Your task to perform on an android device: open app "Walmart Shopping & Grocery" (install if not already installed) and go to login screen Image 0: 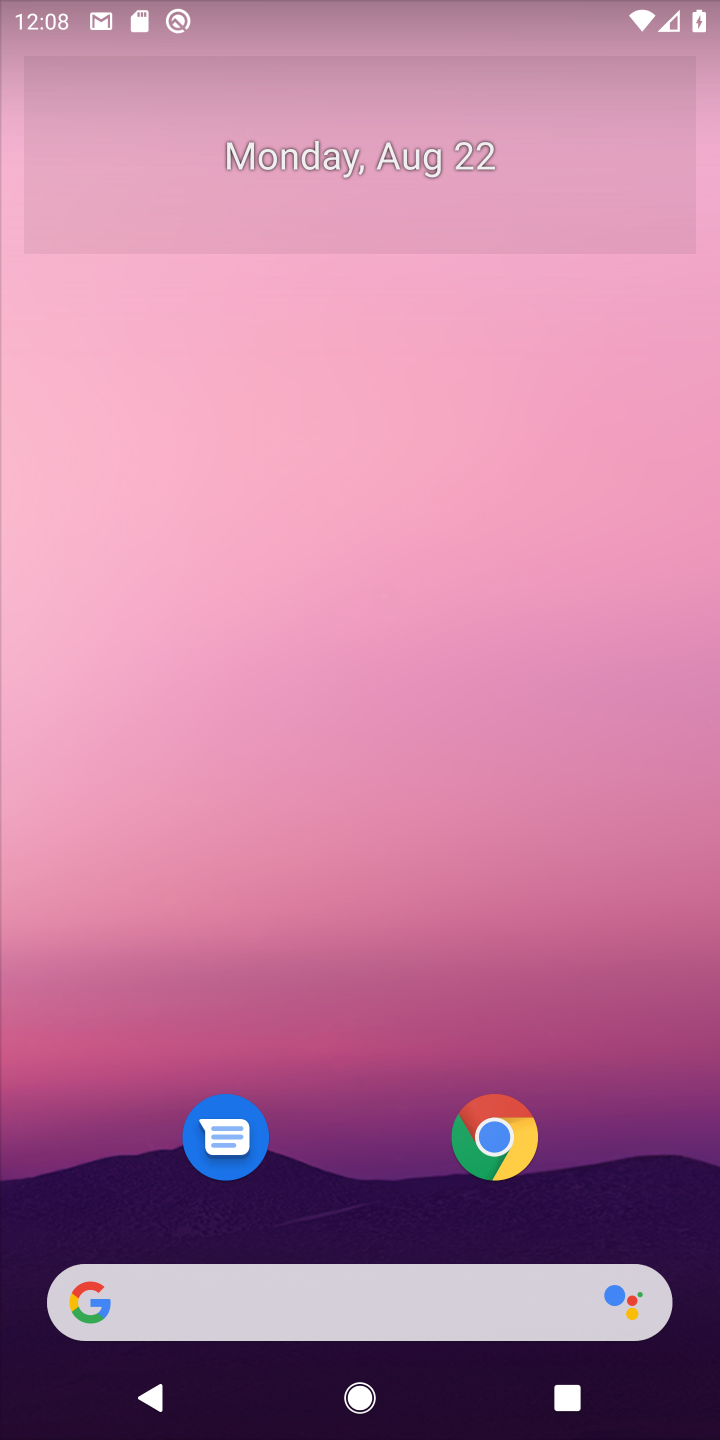
Step 0: drag from (680, 1196) to (593, 221)
Your task to perform on an android device: open app "Walmart Shopping & Grocery" (install if not already installed) and go to login screen Image 1: 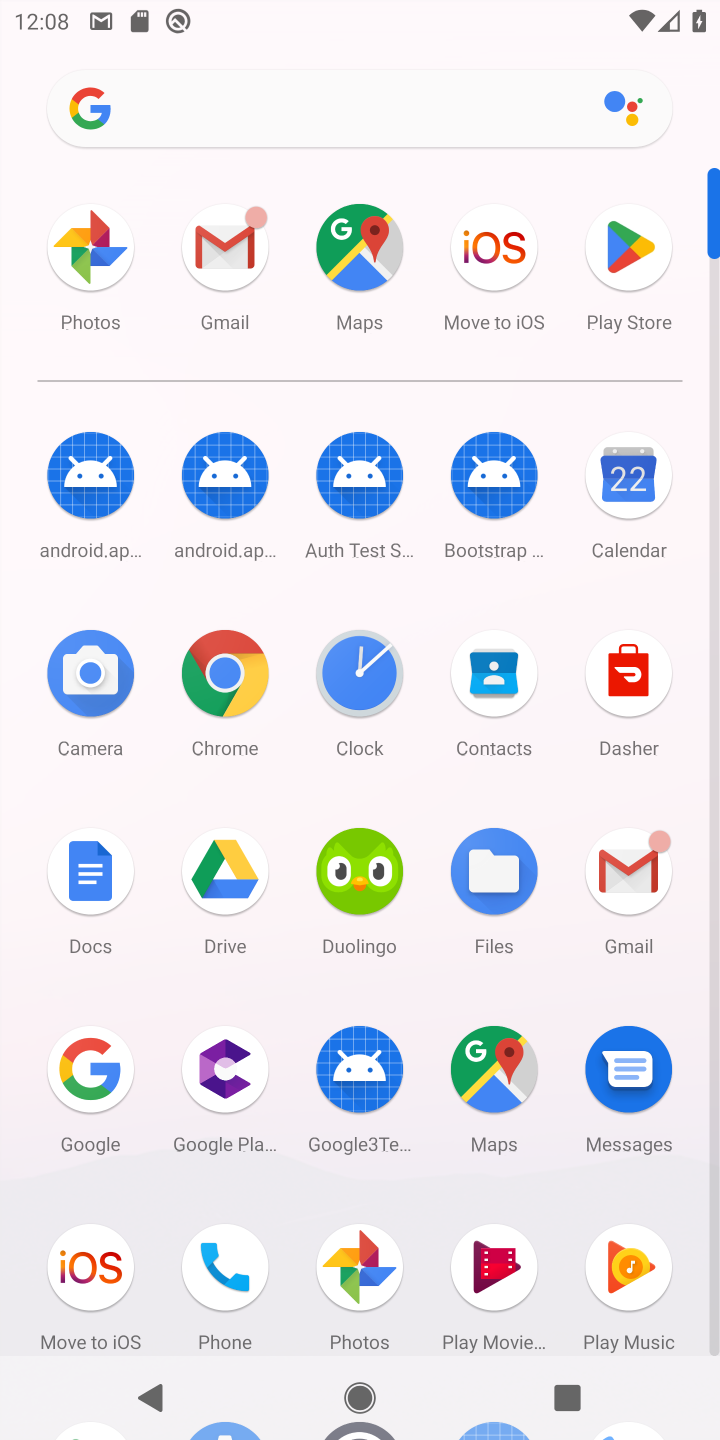
Step 1: drag from (425, 1302) to (431, 701)
Your task to perform on an android device: open app "Walmart Shopping & Grocery" (install if not already installed) and go to login screen Image 2: 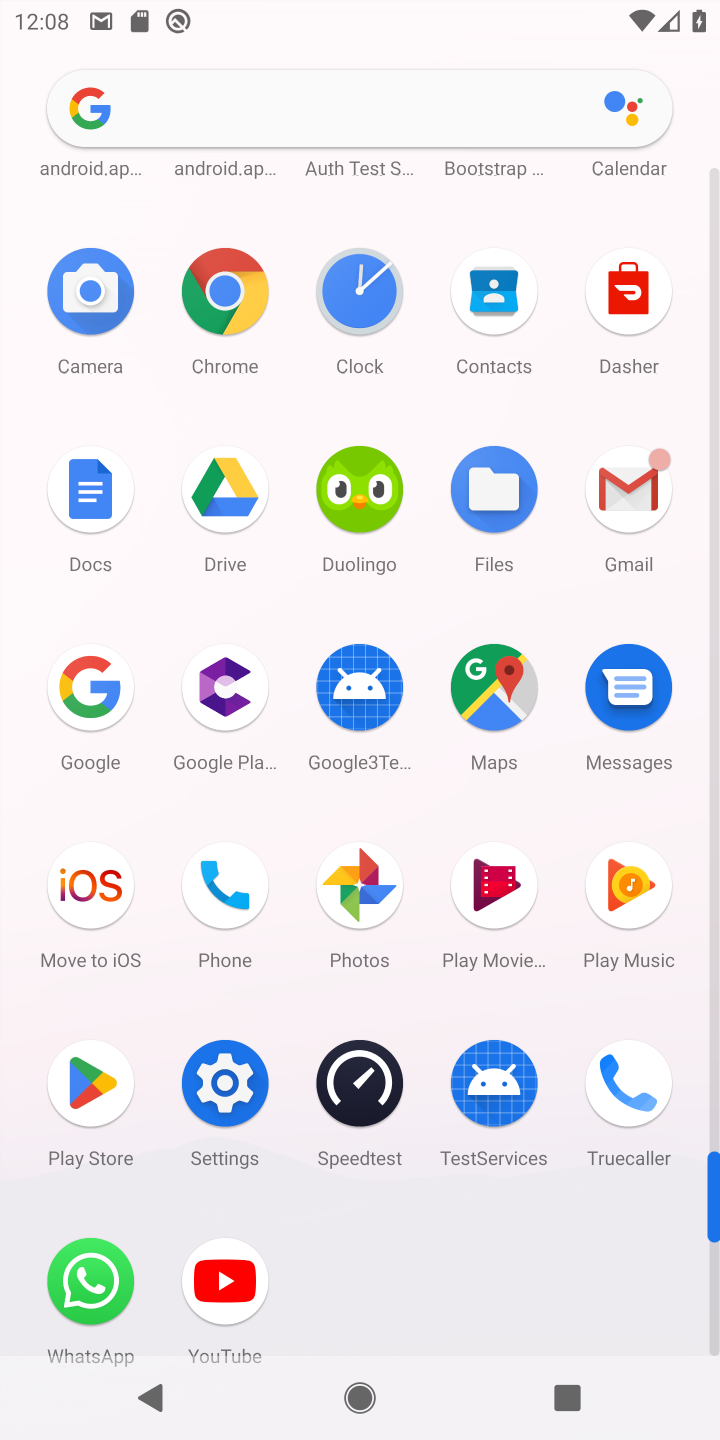
Step 2: click (91, 1082)
Your task to perform on an android device: open app "Walmart Shopping & Grocery" (install if not already installed) and go to login screen Image 3: 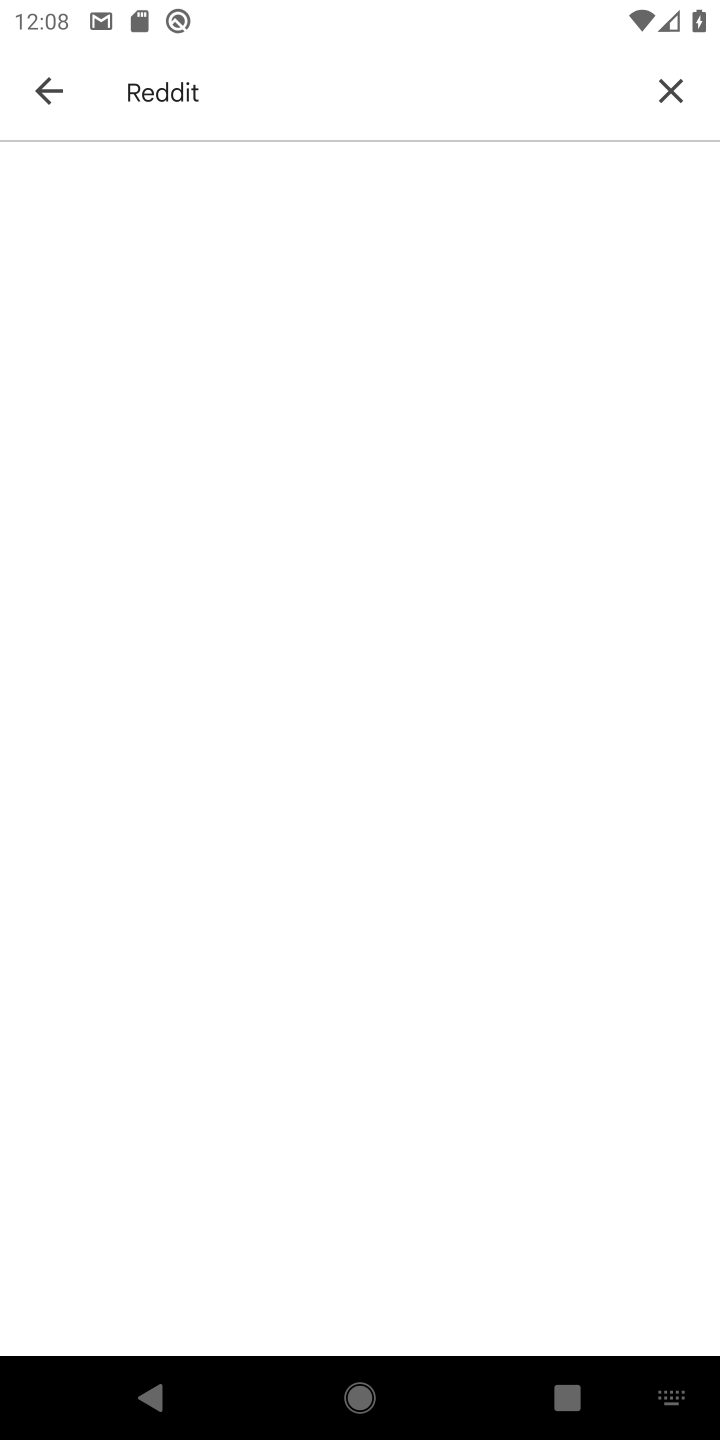
Step 3: click (672, 85)
Your task to perform on an android device: open app "Walmart Shopping & Grocery" (install if not already installed) and go to login screen Image 4: 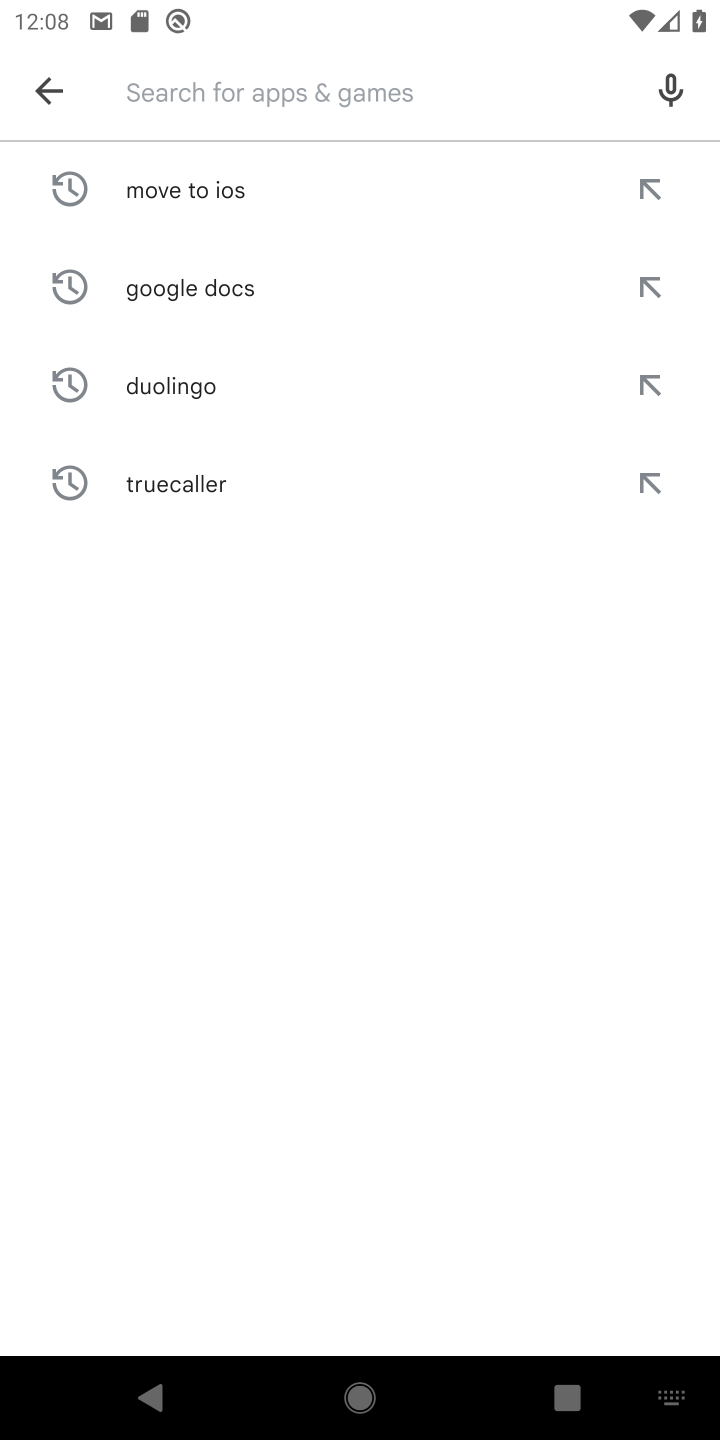
Step 4: type "Walmart Shopping & Grocery"
Your task to perform on an android device: open app "Walmart Shopping & Grocery" (install if not already installed) and go to login screen Image 5: 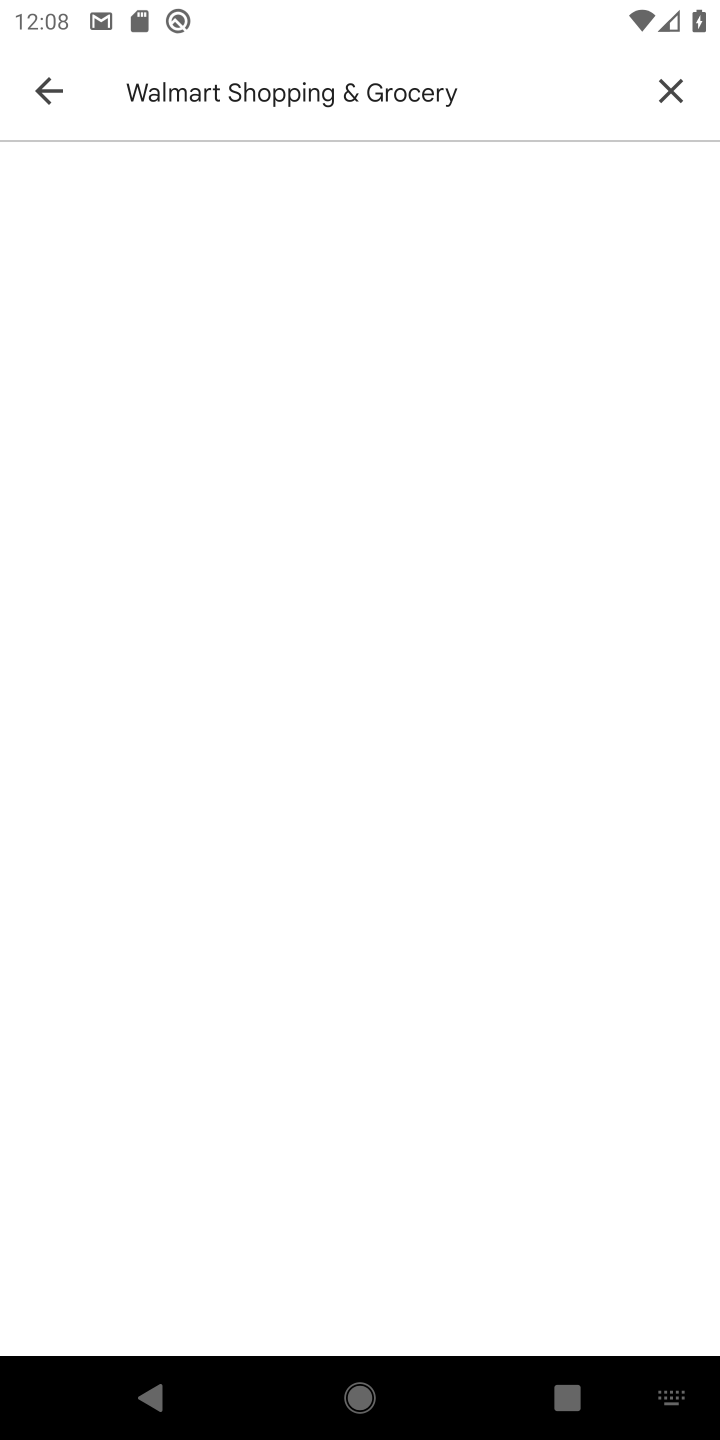
Step 5: task complete